Your task to perform on an android device: turn off notifications in google photos Image 0: 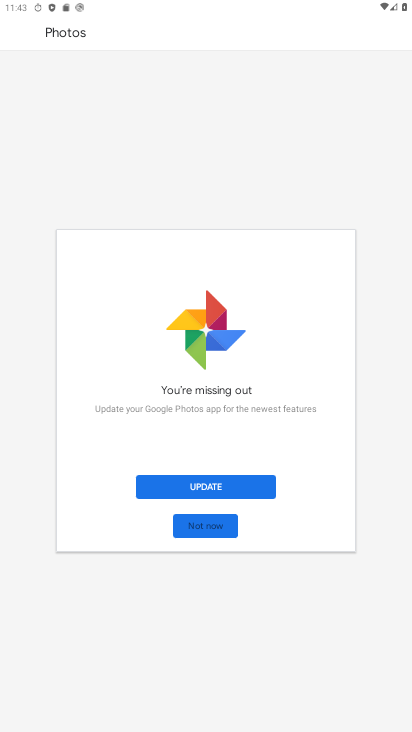
Step 0: press home button
Your task to perform on an android device: turn off notifications in google photos Image 1: 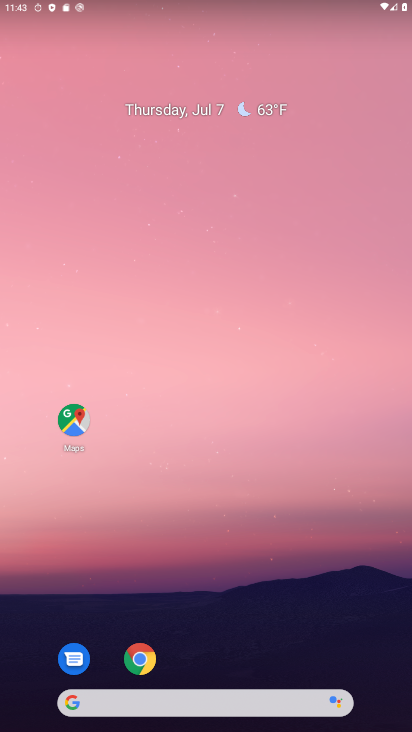
Step 1: drag from (236, 508) to (269, 2)
Your task to perform on an android device: turn off notifications in google photos Image 2: 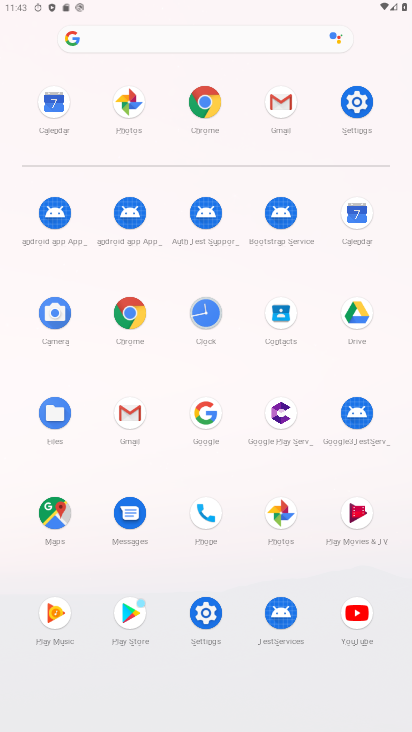
Step 2: click (291, 519)
Your task to perform on an android device: turn off notifications in google photos Image 3: 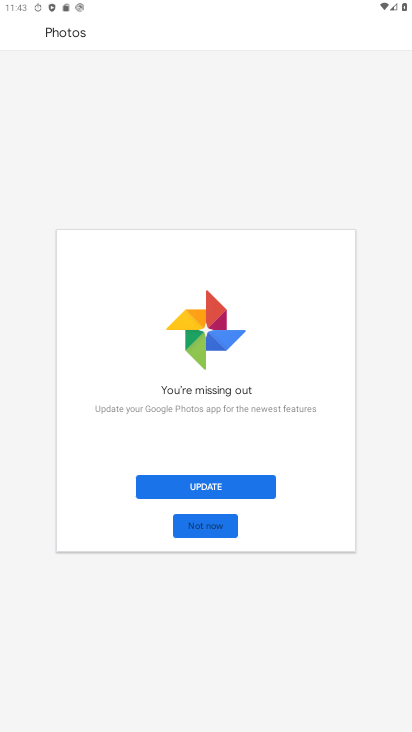
Step 3: click (209, 528)
Your task to perform on an android device: turn off notifications in google photos Image 4: 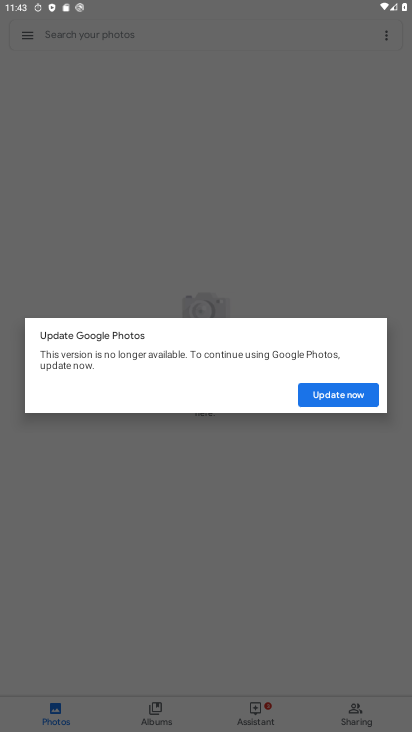
Step 4: click (344, 396)
Your task to perform on an android device: turn off notifications in google photos Image 5: 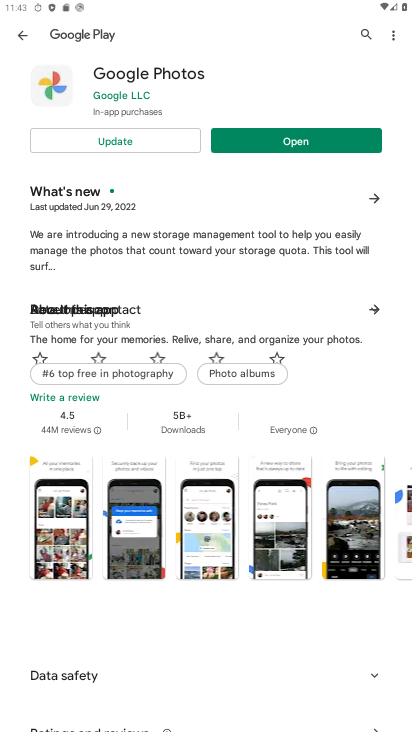
Step 5: click (303, 140)
Your task to perform on an android device: turn off notifications in google photos Image 6: 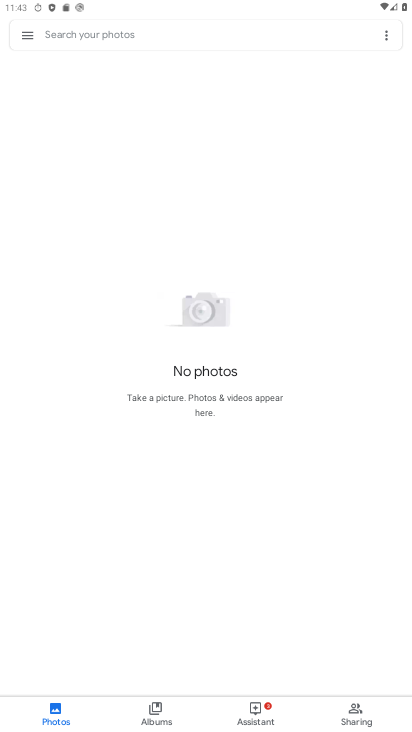
Step 6: click (26, 40)
Your task to perform on an android device: turn off notifications in google photos Image 7: 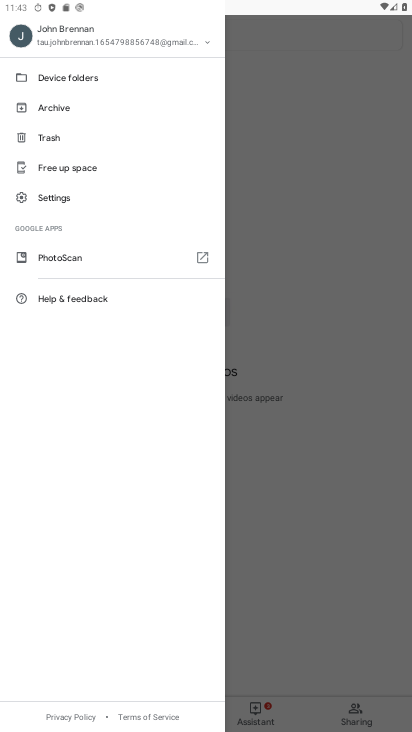
Step 7: click (60, 194)
Your task to perform on an android device: turn off notifications in google photos Image 8: 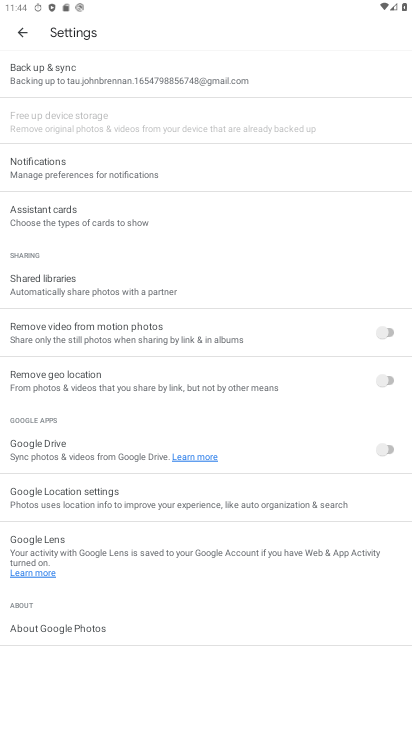
Step 8: click (142, 174)
Your task to perform on an android device: turn off notifications in google photos Image 9: 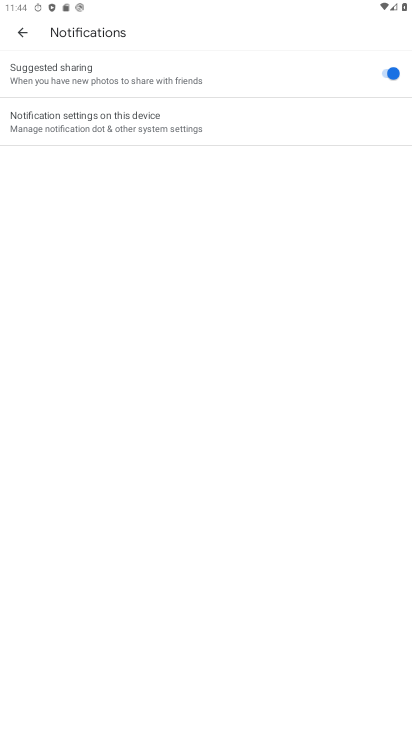
Step 9: click (120, 133)
Your task to perform on an android device: turn off notifications in google photos Image 10: 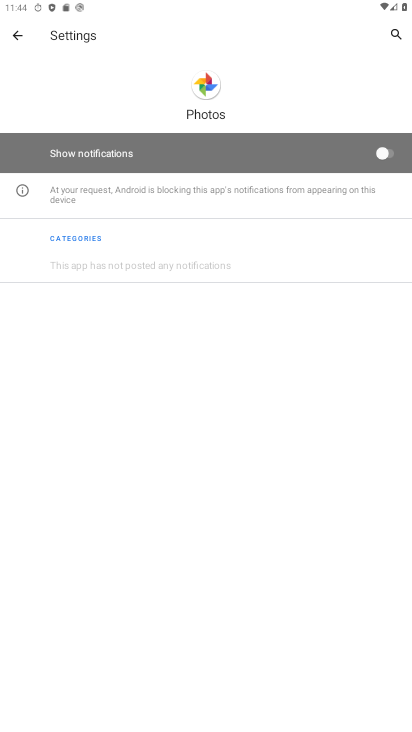
Step 10: task complete